Your task to perform on an android device: turn off sleep mode Image 0: 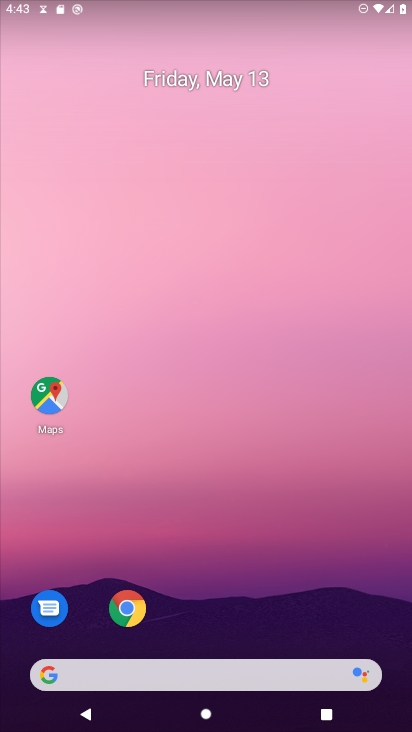
Step 0: drag from (320, 654) to (353, 4)
Your task to perform on an android device: turn off sleep mode Image 1: 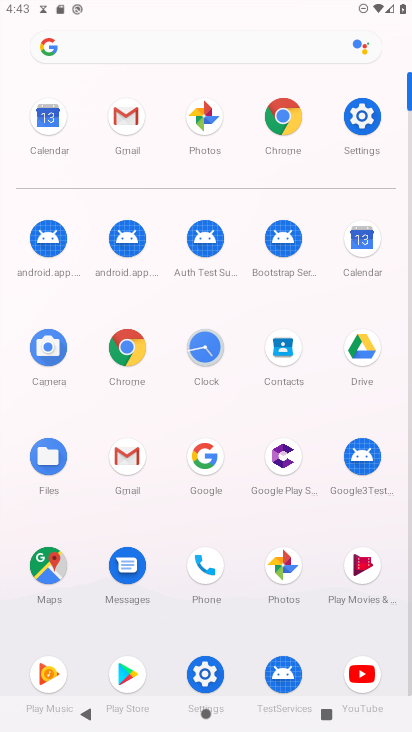
Step 1: click (362, 115)
Your task to perform on an android device: turn off sleep mode Image 2: 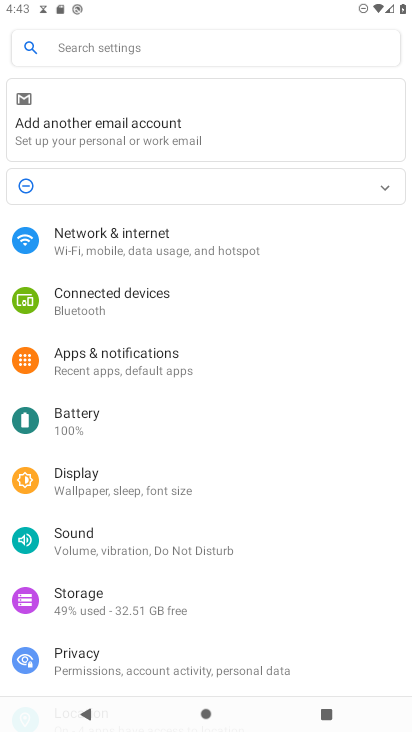
Step 2: click (189, 482)
Your task to perform on an android device: turn off sleep mode Image 3: 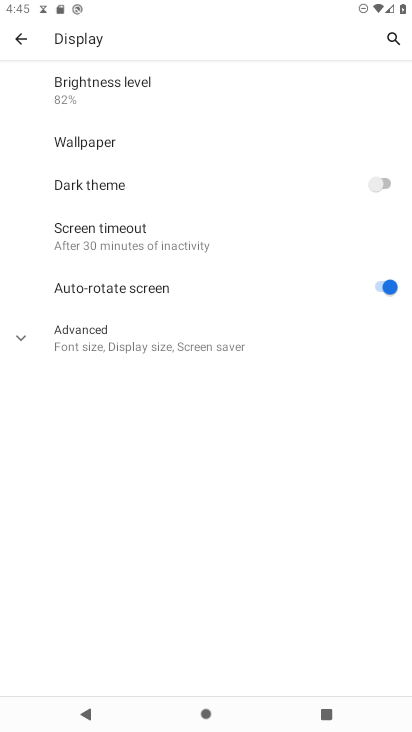
Step 3: task complete